Your task to perform on an android device: toggle data saver in the chrome app Image 0: 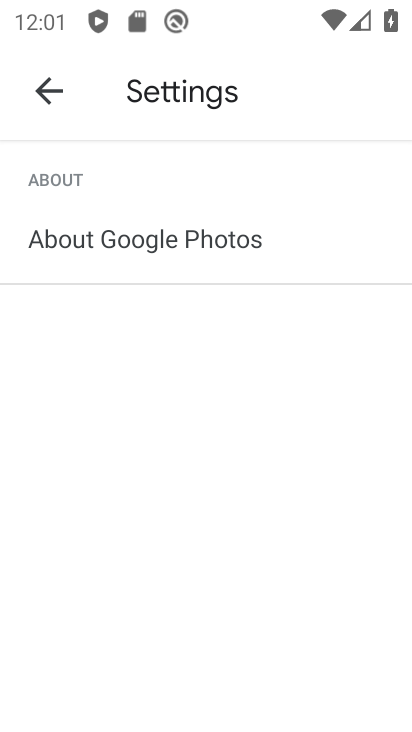
Step 0: press home button
Your task to perform on an android device: toggle data saver in the chrome app Image 1: 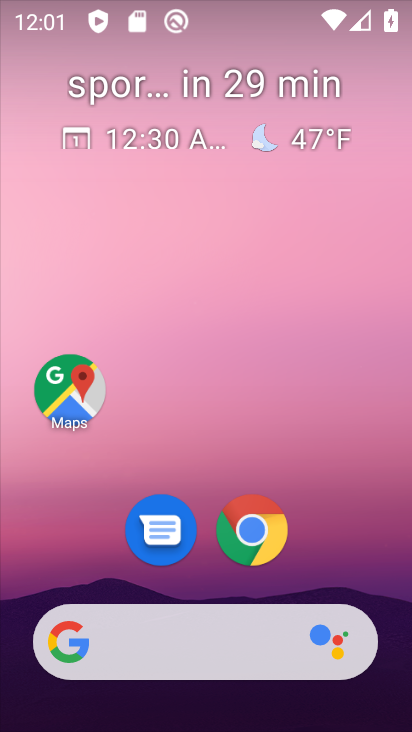
Step 1: drag from (341, 539) to (335, 123)
Your task to perform on an android device: toggle data saver in the chrome app Image 2: 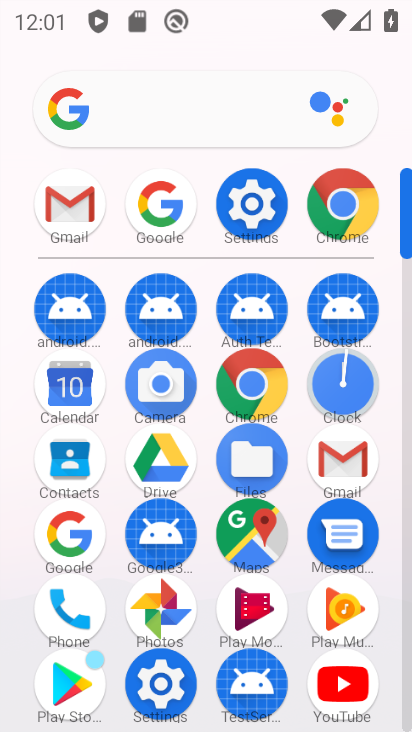
Step 2: click (355, 212)
Your task to perform on an android device: toggle data saver in the chrome app Image 3: 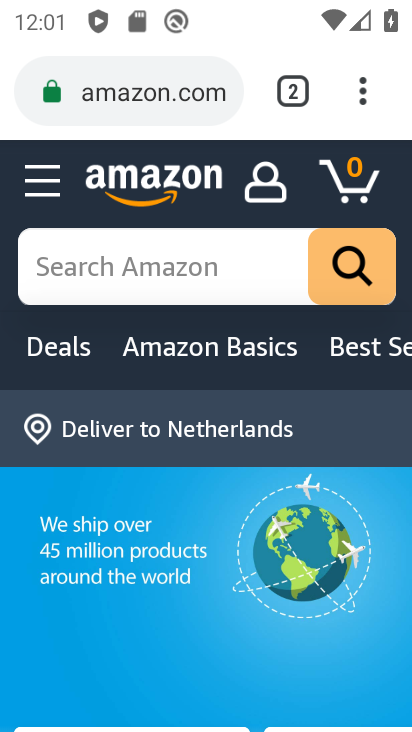
Step 3: drag from (368, 106) to (157, 572)
Your task to perform on an android device: toggle data saver in the chrome app Image 4: 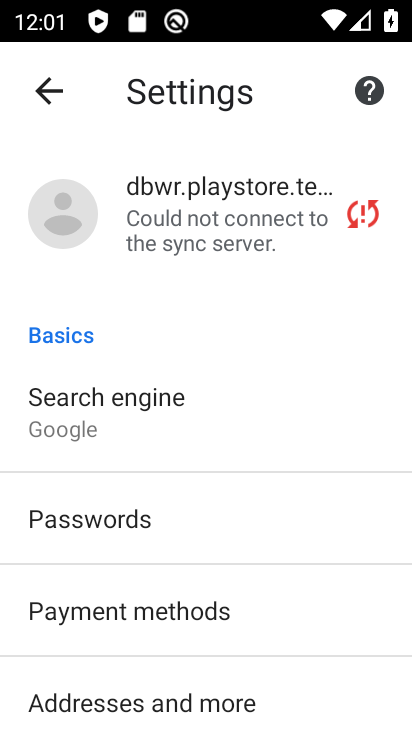
Step 4: drag from (270, 636) to (277, 363)
Your task to perform on an android device: toggle data saver in the chrome app Image 5: 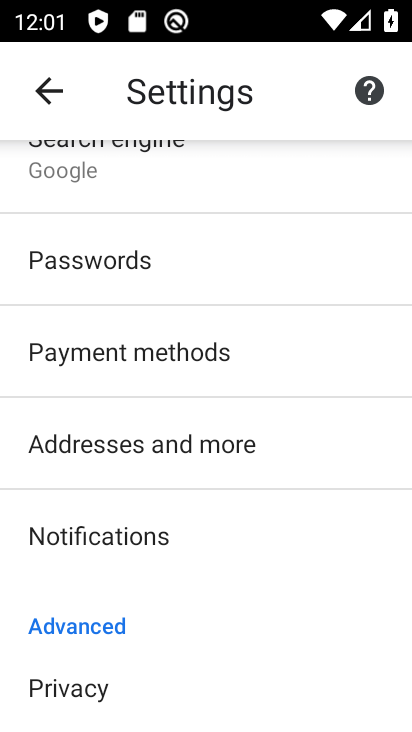
Step 5: drag from (270, 657) to (269, 337)
Your task to perform on an android device: toggle data saver in the chrome app Image 6: 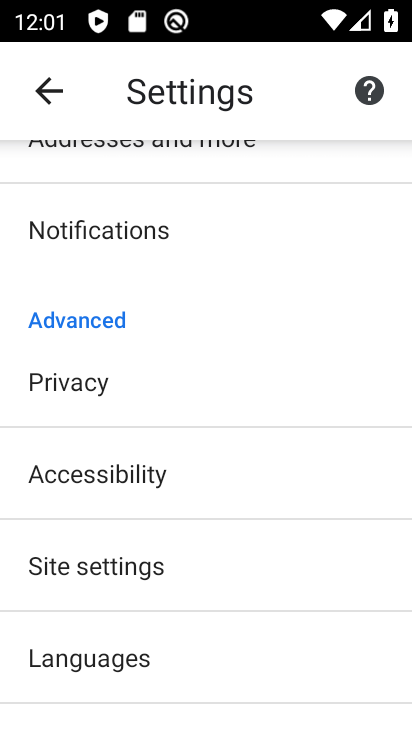
Step 6: drag from (259, 653) to (279, 357)
Your task to perform on an android device: toggle data saver in the chrome app Image 7: 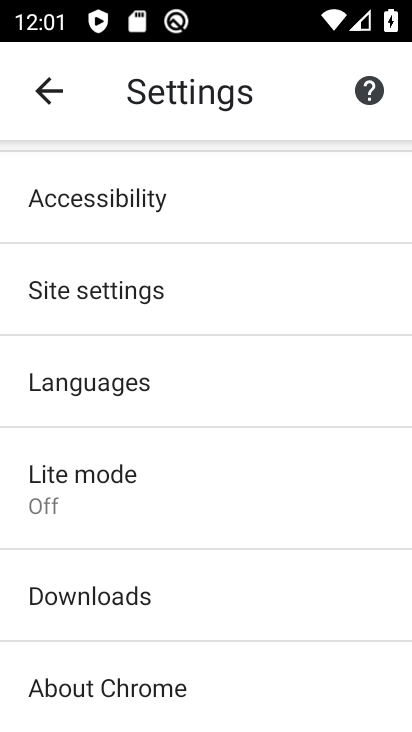
Step 7: click (128, 486)
Your task to perform on an android device: toggle data saver in the chrome app Image 8: 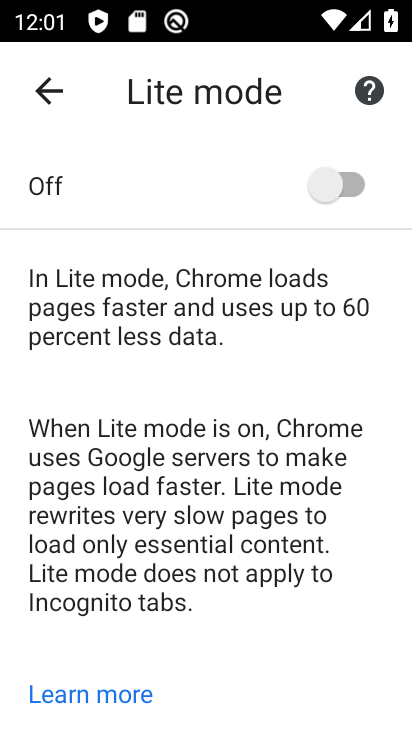
Step 8: click (360, 188)
Your task to perform on an android device: toggle data saver in the chrome app Image 9: 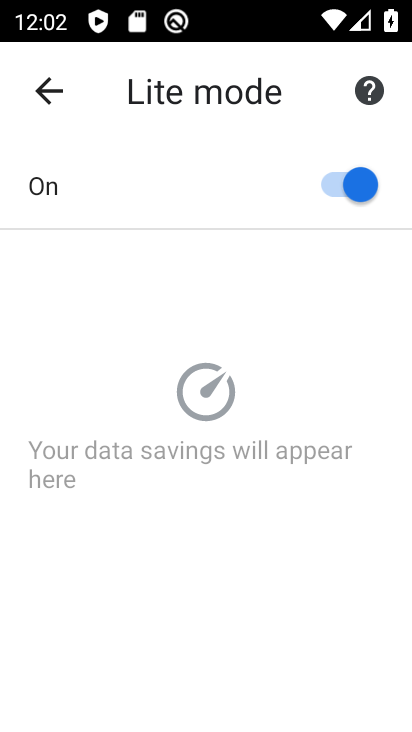
Step 9: task complete